Your task to perform on an android device: Open ESPN.com Image 0: 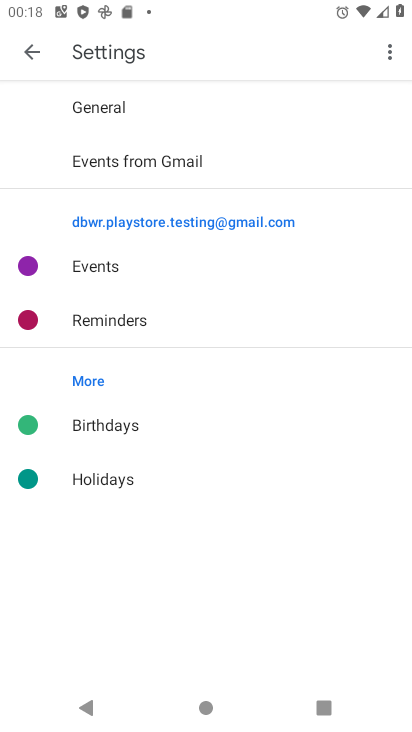
Step 0: press home button
Your task to perform on an android device: Open ESPN.com Image 1: 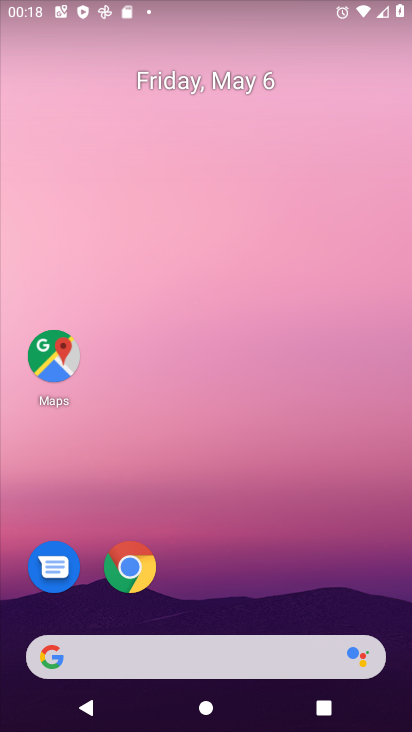
Step 1: click (132, 564)
Your task to perform on an android device: Open ESPN.com Image 2: 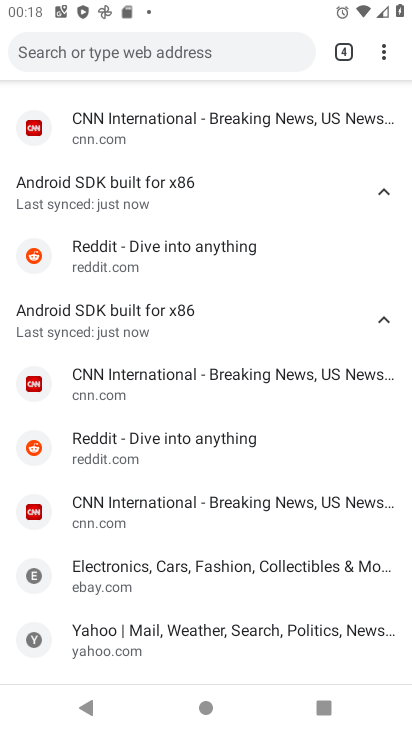
Step 2: click (348, 52)
Your task to perform on an android device: Open ESPN.com Image 3: 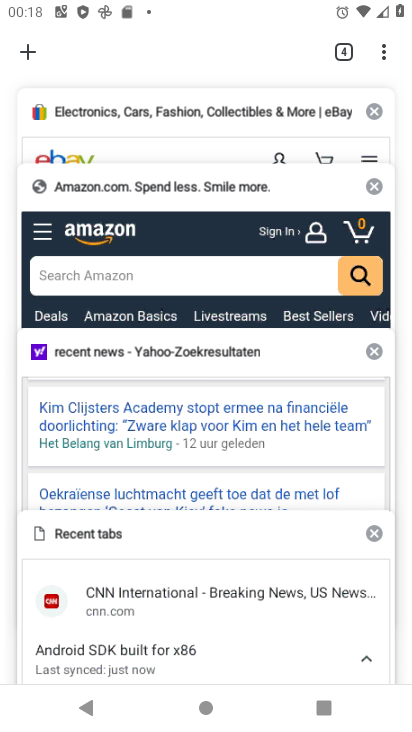
Step 3: click (29, 57)
Your task to perform on an android device: Open ESPN.com Image 4: 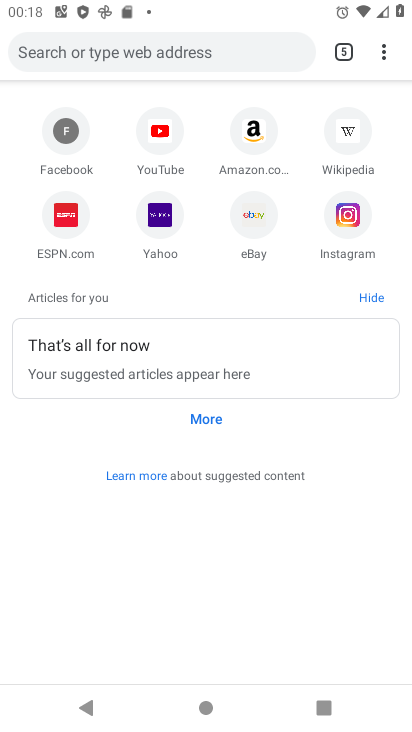
Step 4: click (80, 206)
Your task to perform on an android device: Open ESPN.com Image 5: 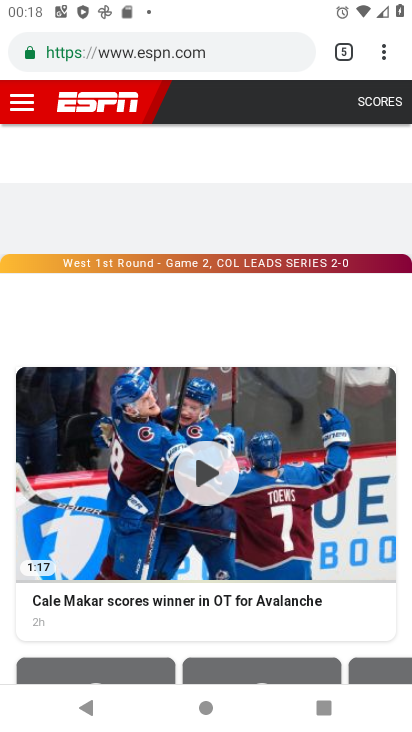
Step 5: task complete